Your task to perform on an android device: turn vacation reply on in the gmail app Image 0: 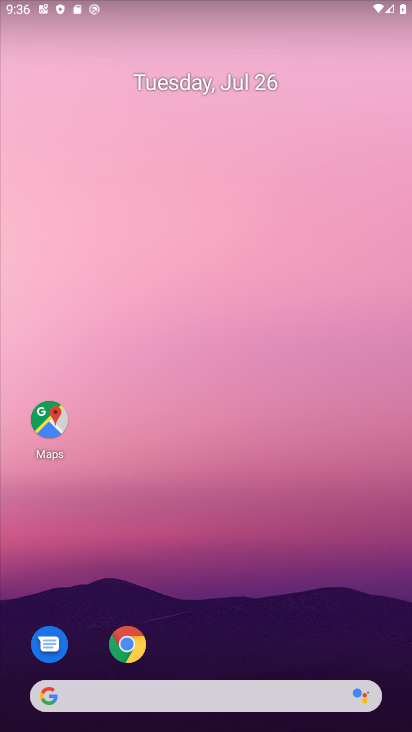
Step 0: drag from (208, 637) to (279, 7)
Your task to perform on an android device: turn vacation reply on in the gmail app Image 1: 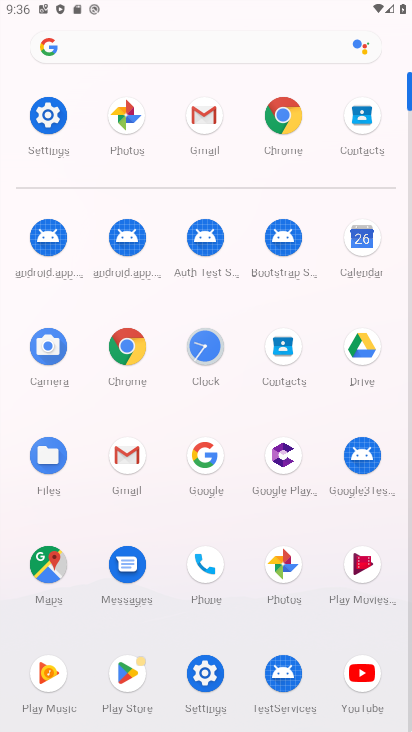
Step 1: click (131, 473)
Your task to perform on an android device: turn vacation reply on in the gmail app Image 2: 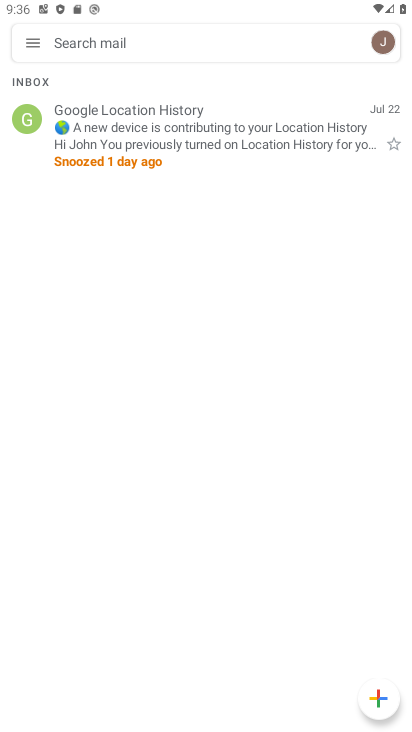
Step 2: click (30, 43)
Your task to perform on an android device: turn vacation reply on in the gmail app Image 3: 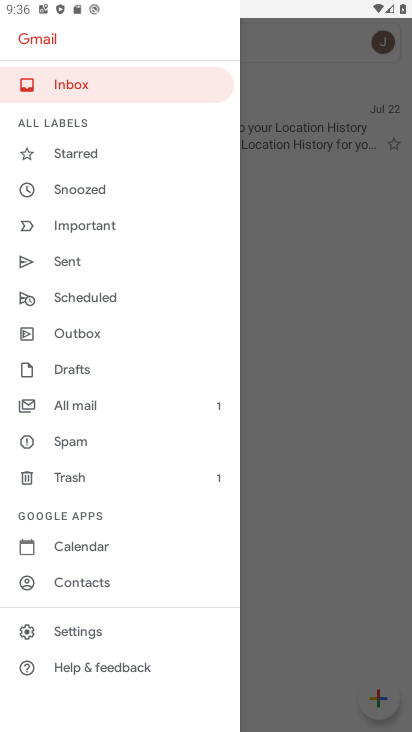
Step 3: click (84, 624)
Your task to perform on an android device: turn vacation reply on in the gmail app Image 4: 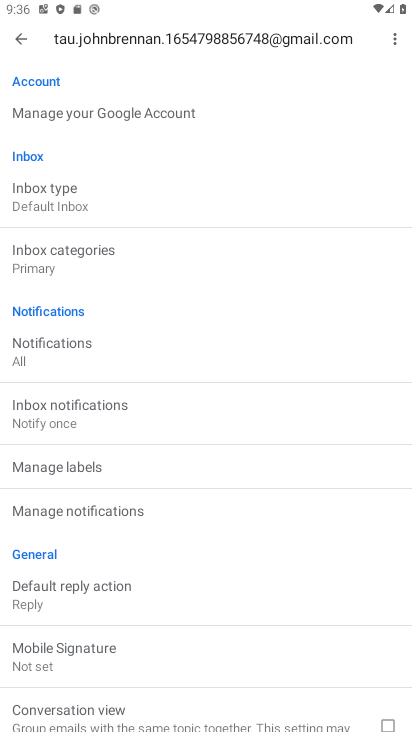
Step 4: drag from (96, 541) to (109, 240)
Your task to perform on an android device: turn vacation reply on in the gmail app Image 5: 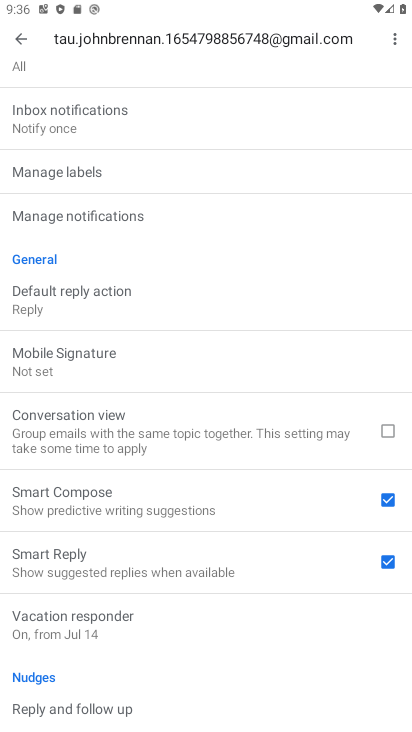
Step 5: click (92, 627)
Your task to perform on an android device: turn vacation reply on in the gmail app Image 6: 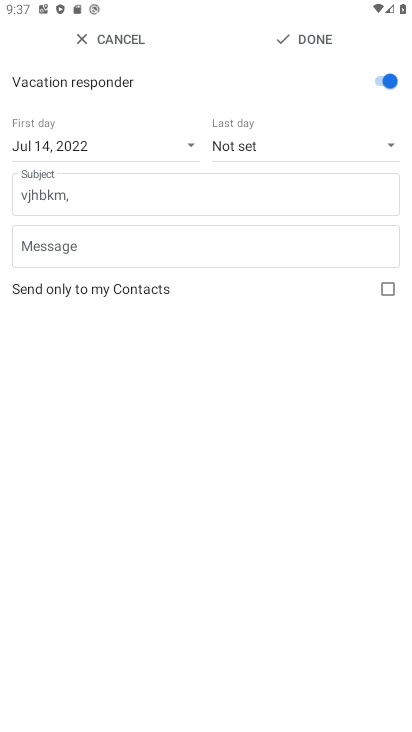
Step 6: task complete